Your task to perform on an android device: toggle notifications settings in the gmail app Image 0: 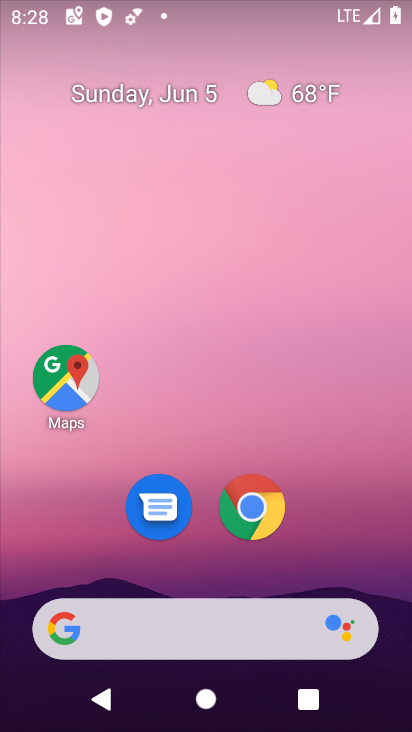
Step 0: drag from (195, 587) to (302, 0)
Your task to perform on an android device: toggle notifications settings in the gmail app Image 1: 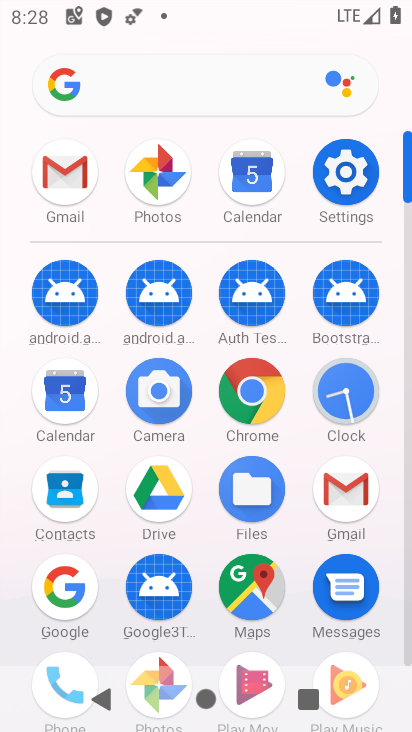
Step 1: click (361, 496)
Your task to perform on an android device: toggle notifications settings in the gmail app Image 2: 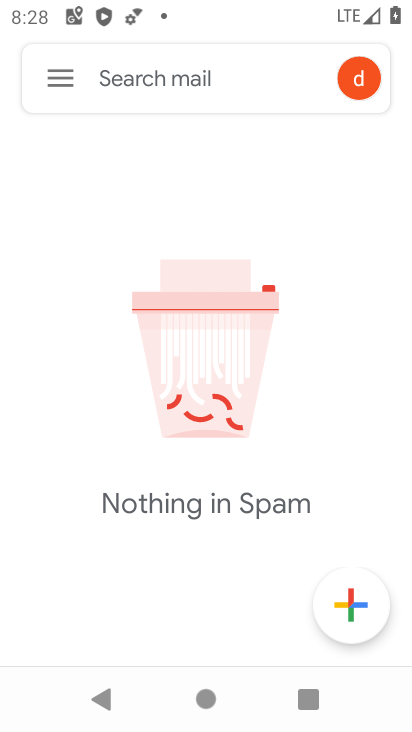
Step 2: click (50, 89)
Your task to perform on an android device: toggle notifications settings in the gmail app Image 3: 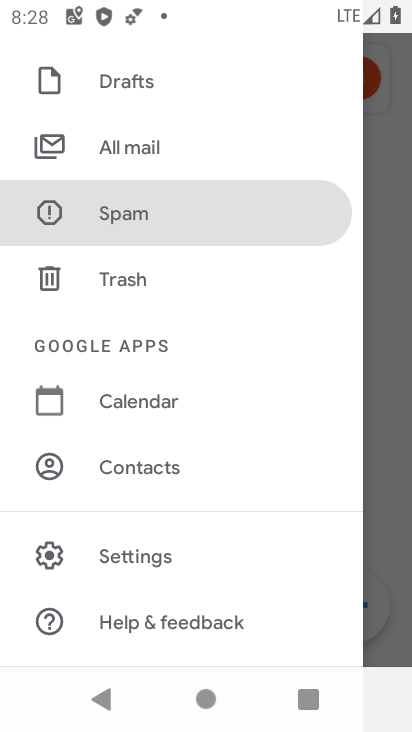
Step 3: click (147, 561)
Your task to perform on an android device: toggle notifications settings in the gmail app Image 4: 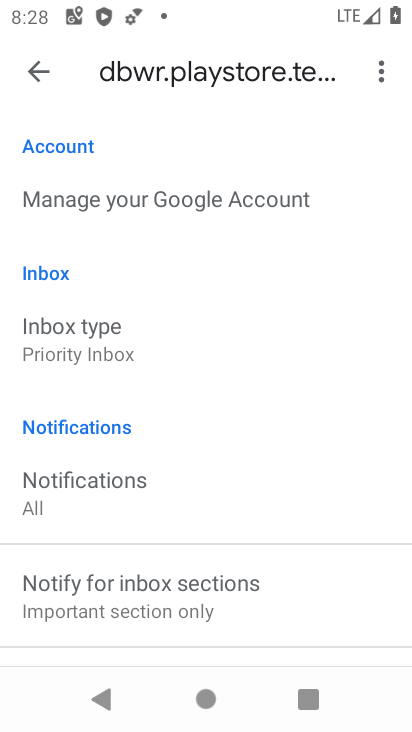
Step 4: click (32, 68)
Your task to perform on an android device: toggle notifications settings in the gmail app Image 5: 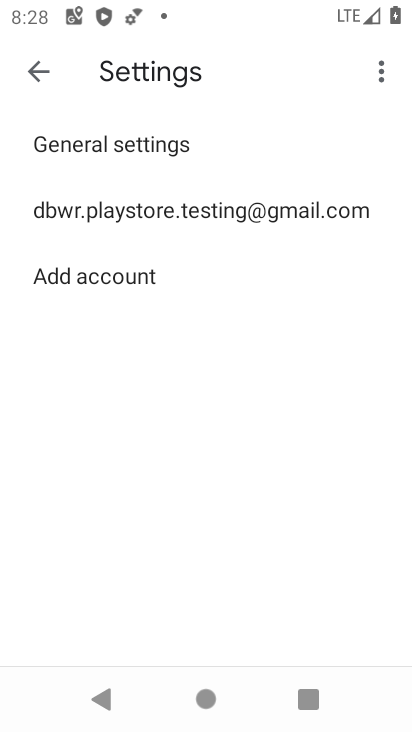
Step 5: click (146, 147)
Your task to perform on an android device: toggle notifications settings in the gmail app Image 6: 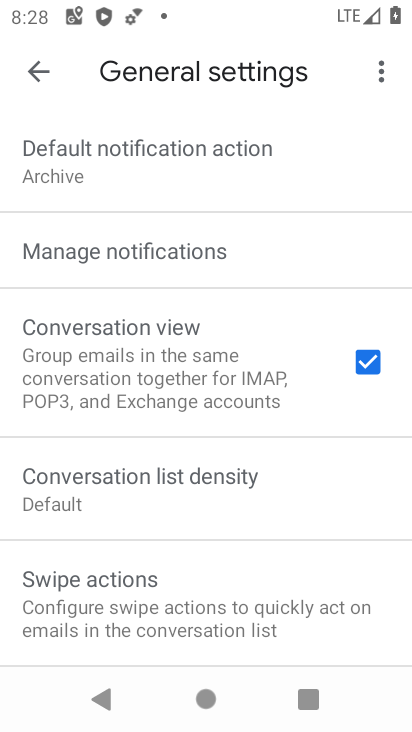
Step 6: click (180, 256)
Your task to perform on an android device: toggle notifications settings in the gmail app Image 7: 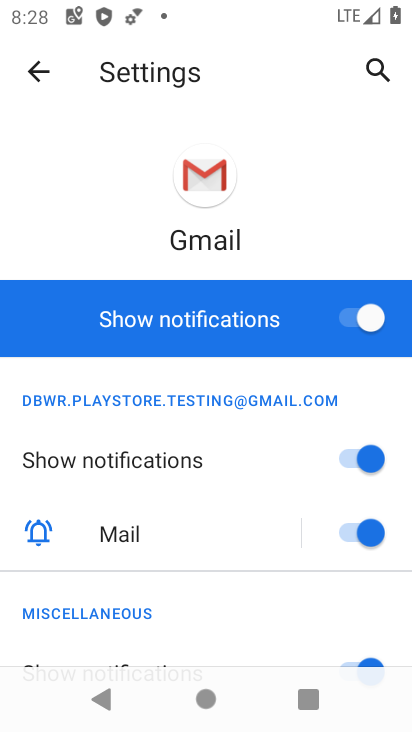
Step 7: click (316, 336)
Your task to perform on an android device: toggle notifications settings in the gmail app Image 8: 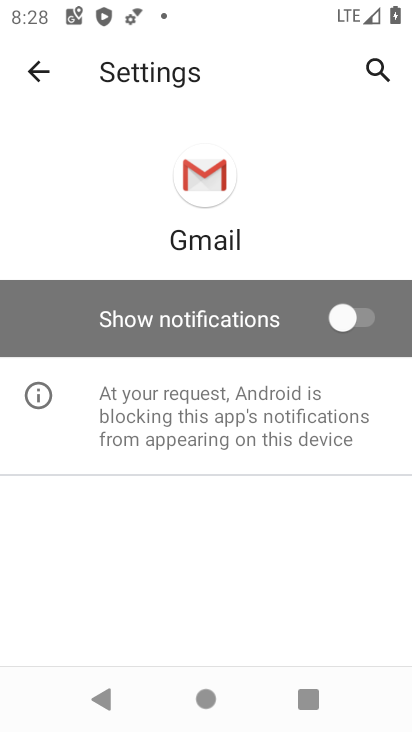
Step 8: task complete